Your task to perform on an android device: install app "Google Play services" Image 0: 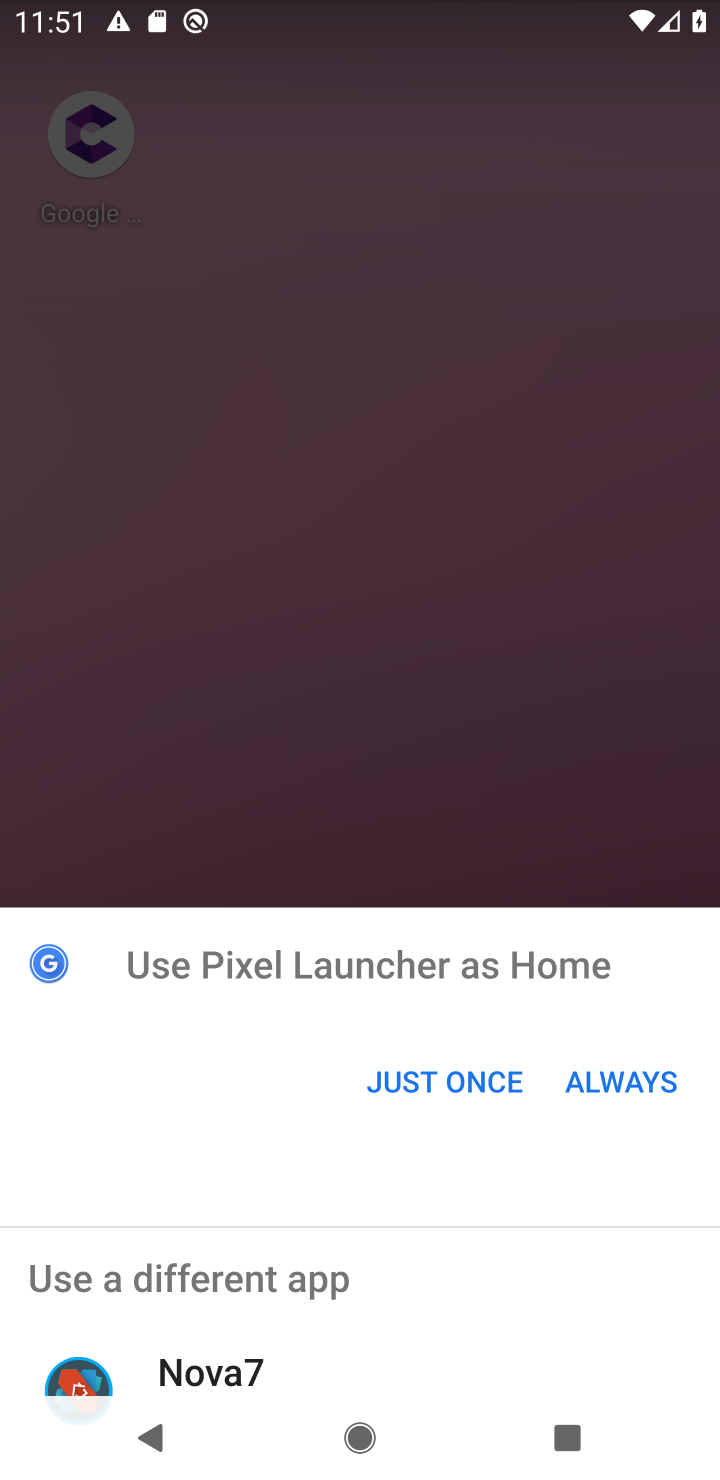
Step 0: press home button
Your task to perform on an android device: install app "Google Play services" Image 1: 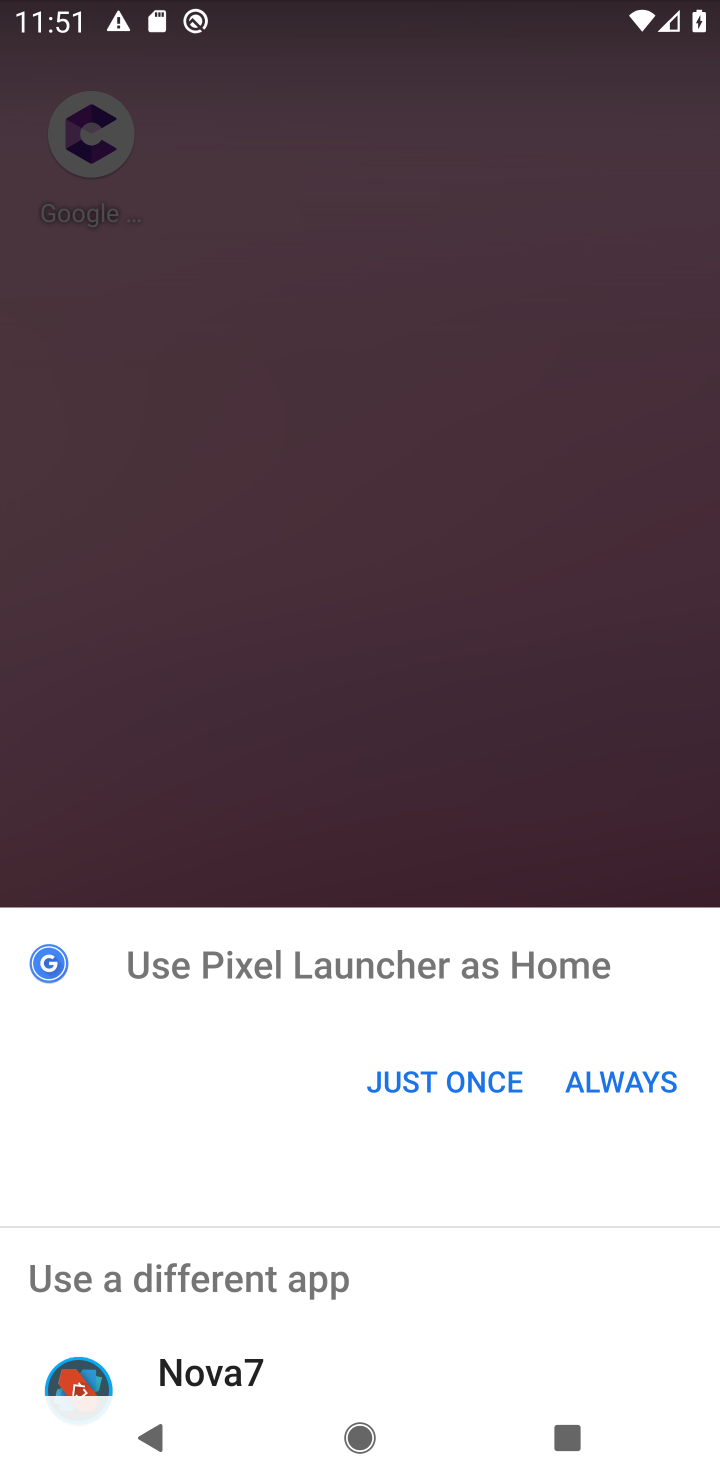
Step 1: click (352, 611)
Your task to perform on an android device: install app "Google Play services" Image 2: 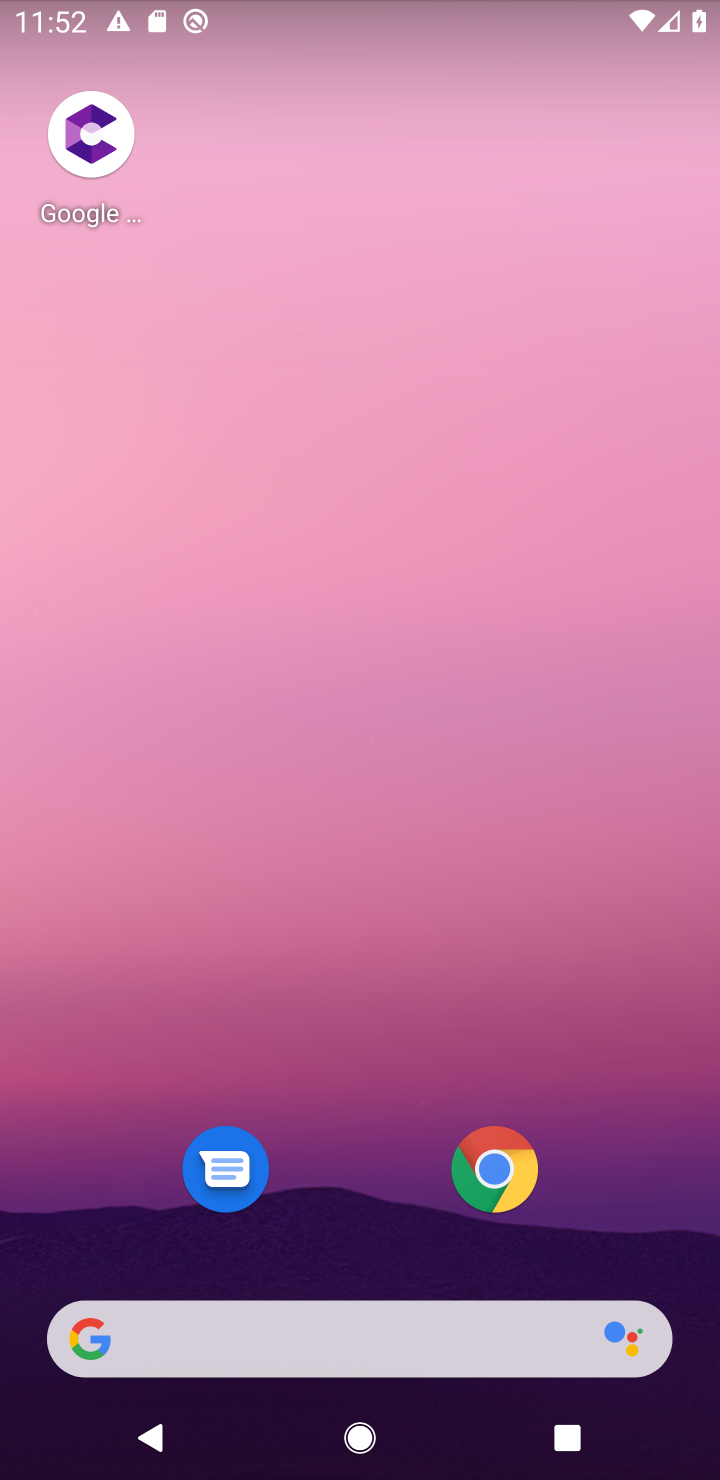
Step 2: drag from (419, 1253) to (293, 165)
Your task to perform on an android device: install app "Google Play services" Image 3: 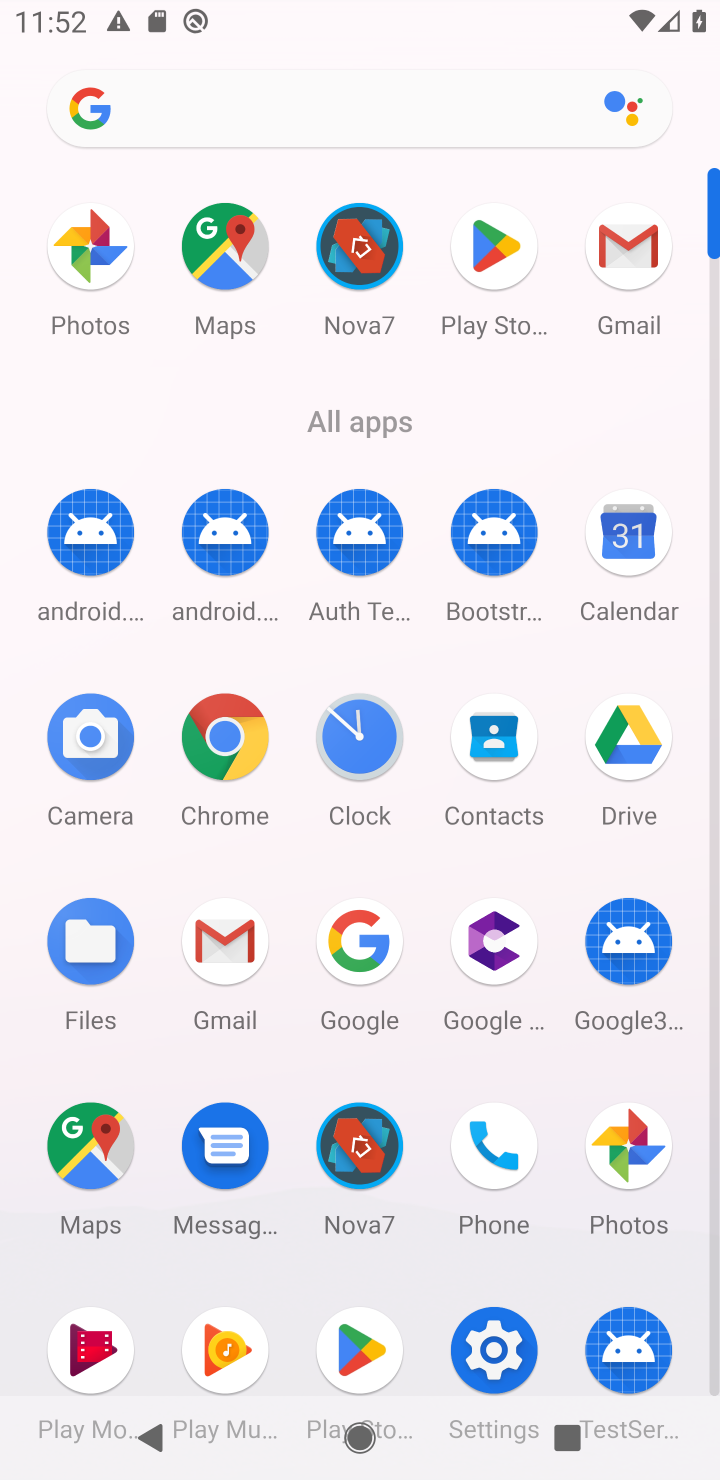
Step 3: click (335, 1351)
Your task to perform on an android device: install app "Google Play services" Image 4: 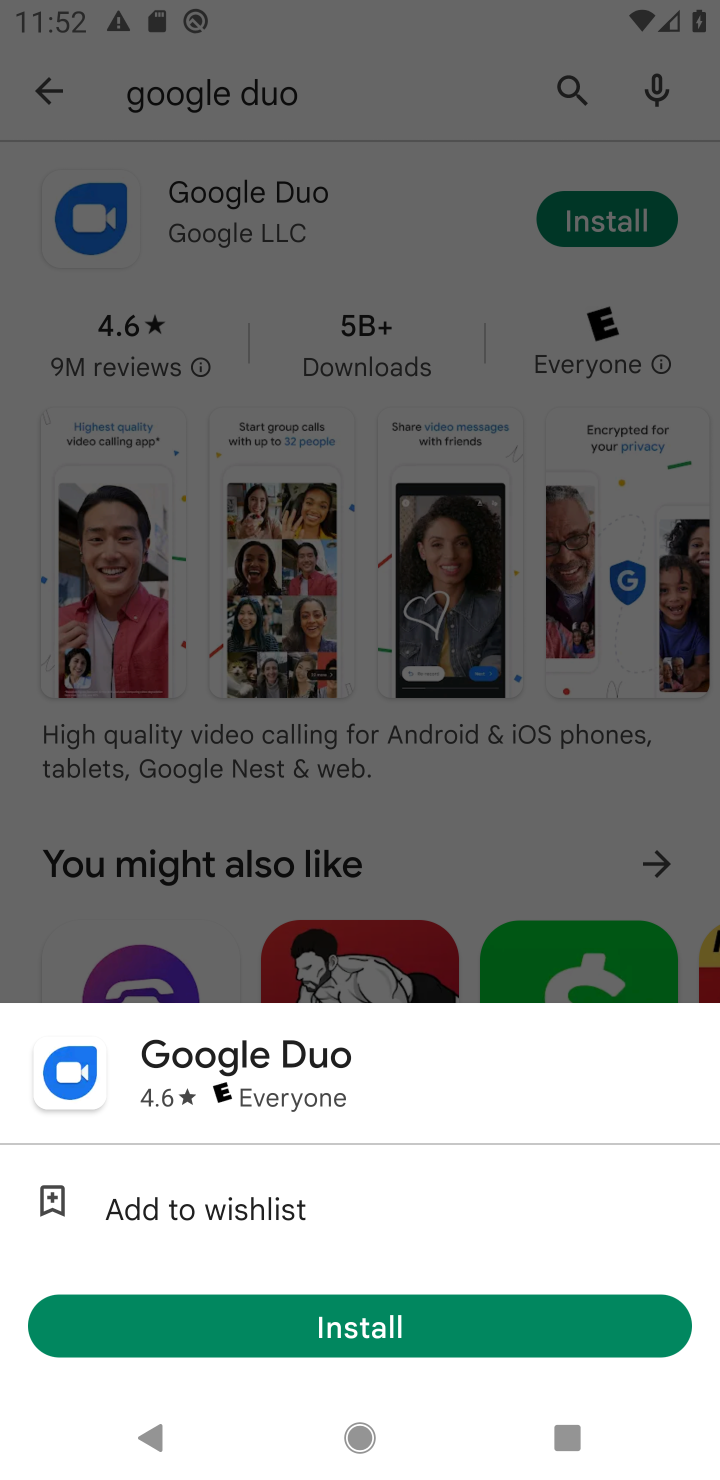
Step 4: click (217, 206)
Your task to perform on an android device: install app "Google Play services" Image 5: 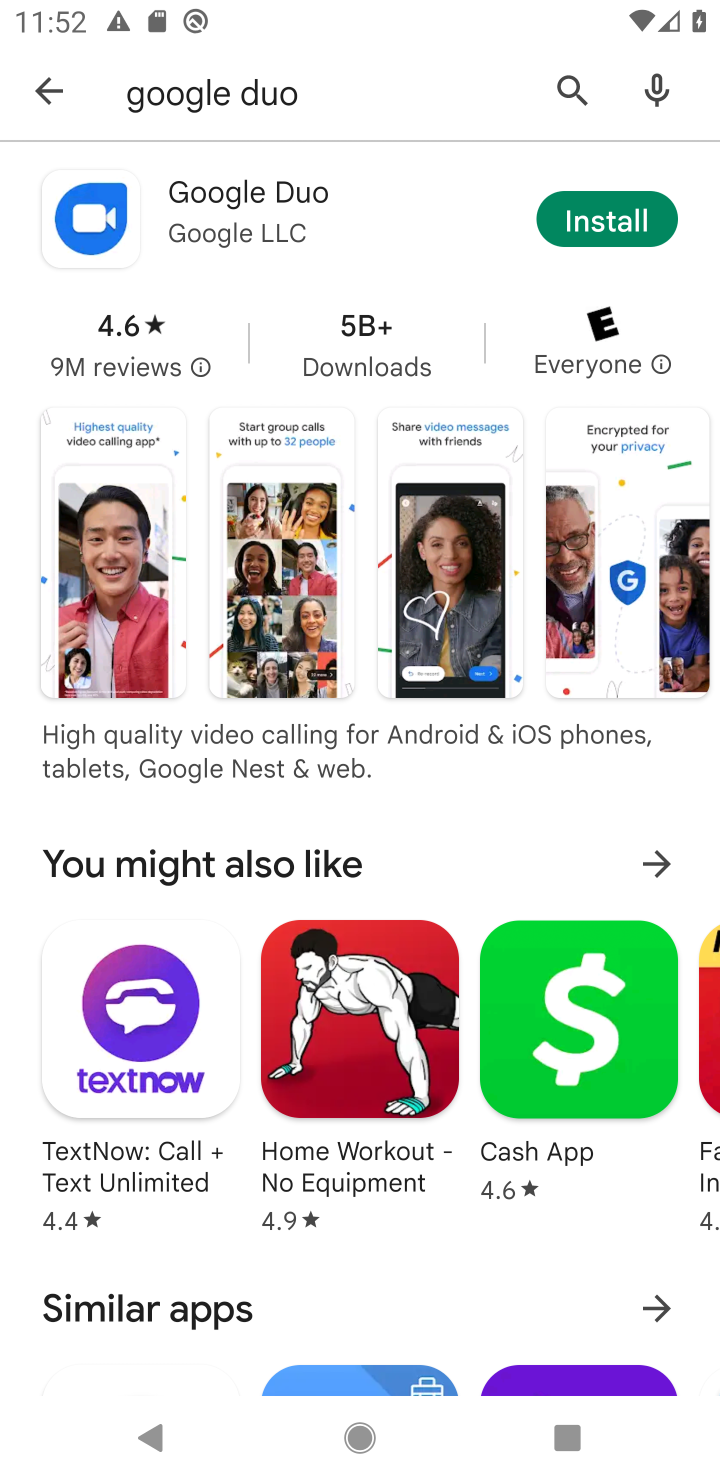
Step 5: click (4, 113)
Your task to perform on an android device: install app "Google Play services" Image 6: 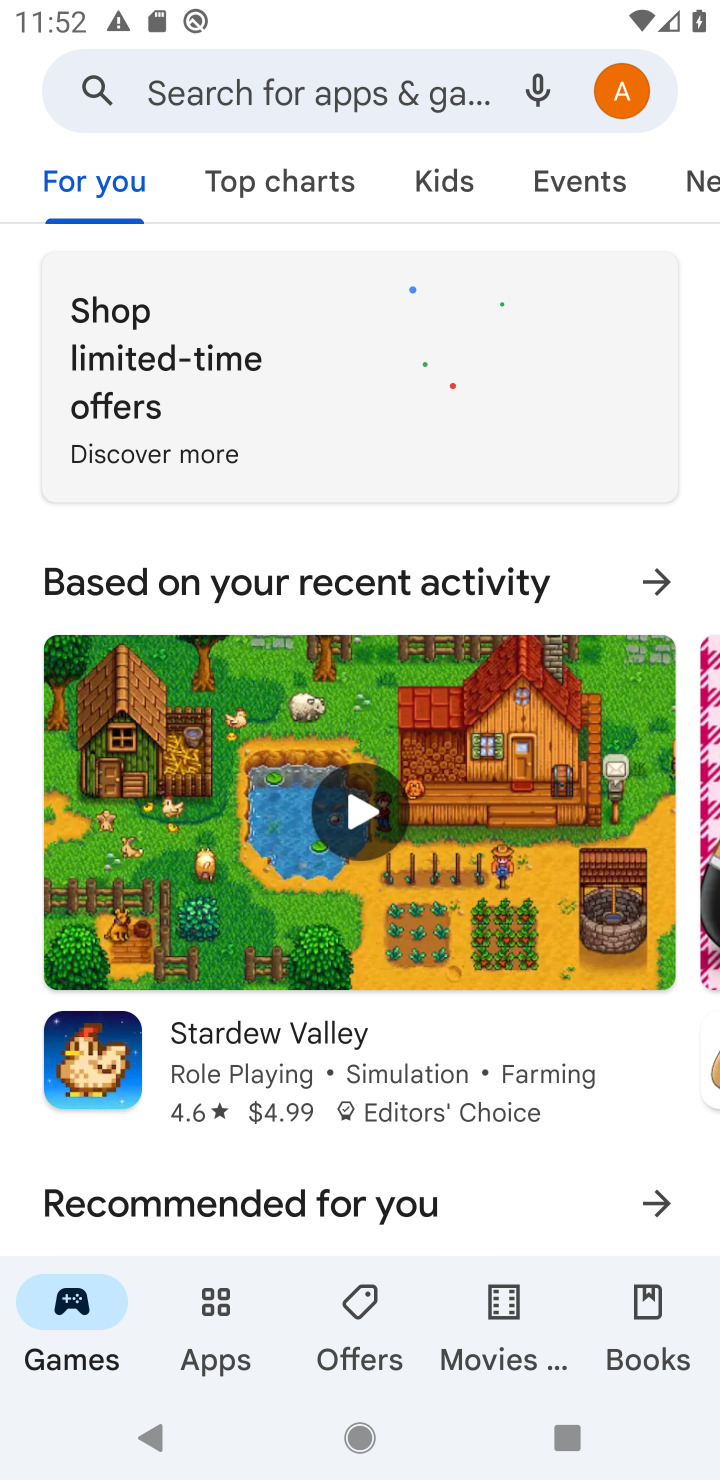
Step 6: click (138, 79)
Your task to perform on an android device: install app "Google Play services" Image 7: 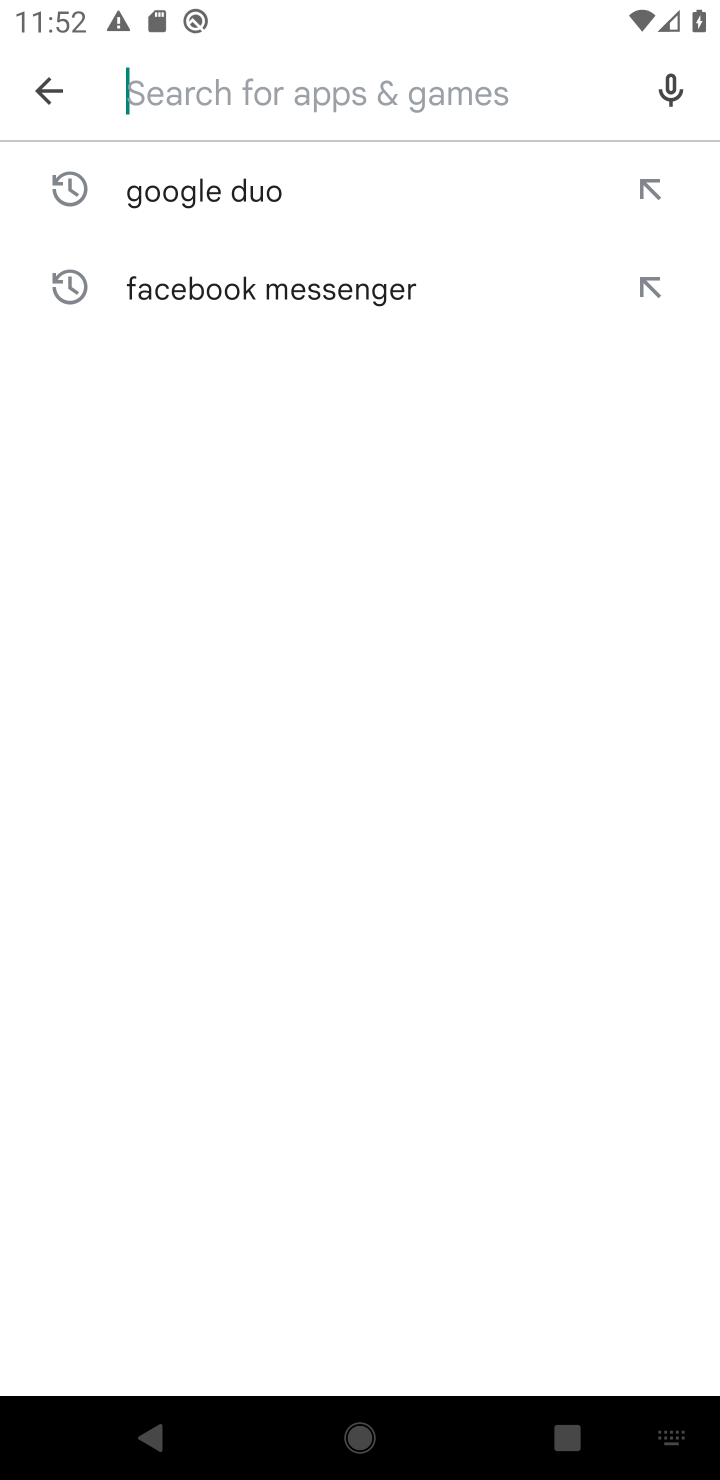
Step 7: type "Google Play services"
Your task to perform on an android device: install app "Google Play services" Image 8: 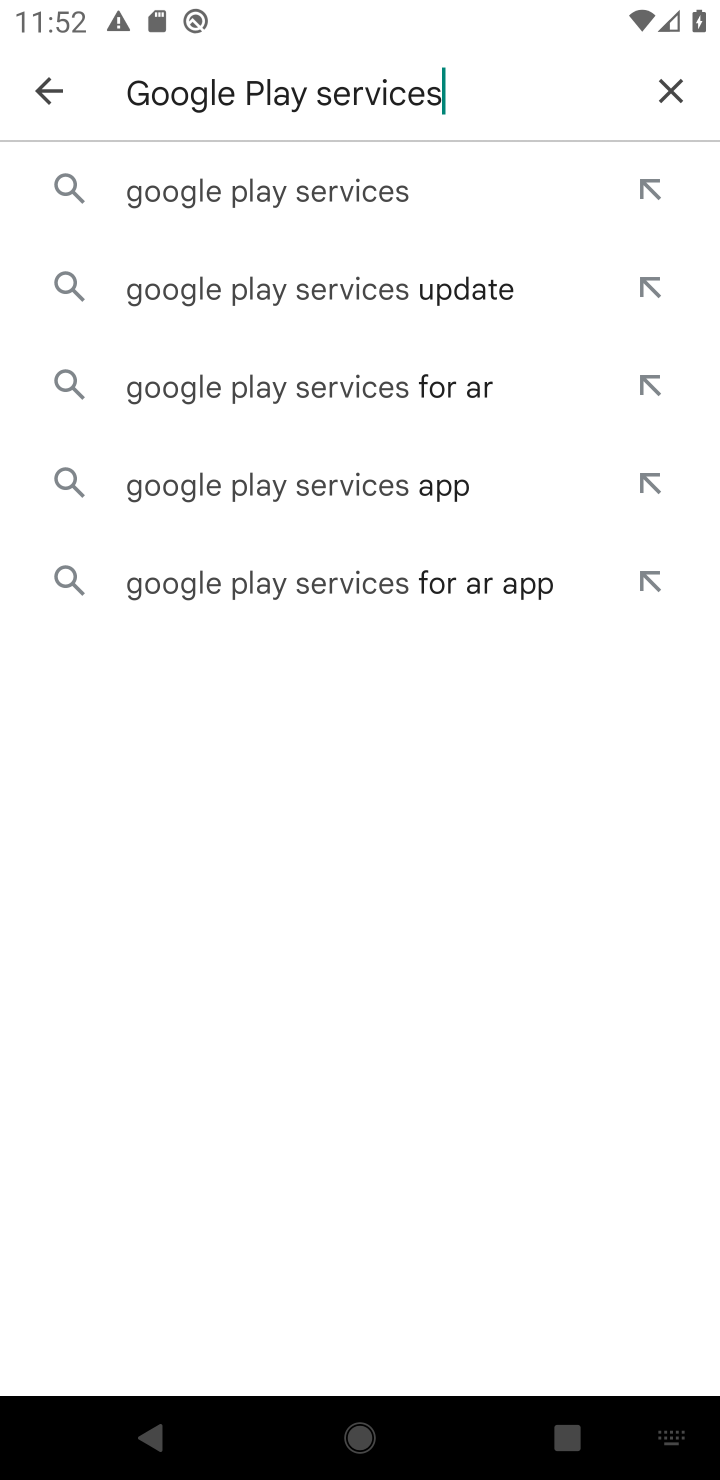
Step 8: click (300, 177)
Your task to perform on an android device: install app "Google Play services" Image 9: 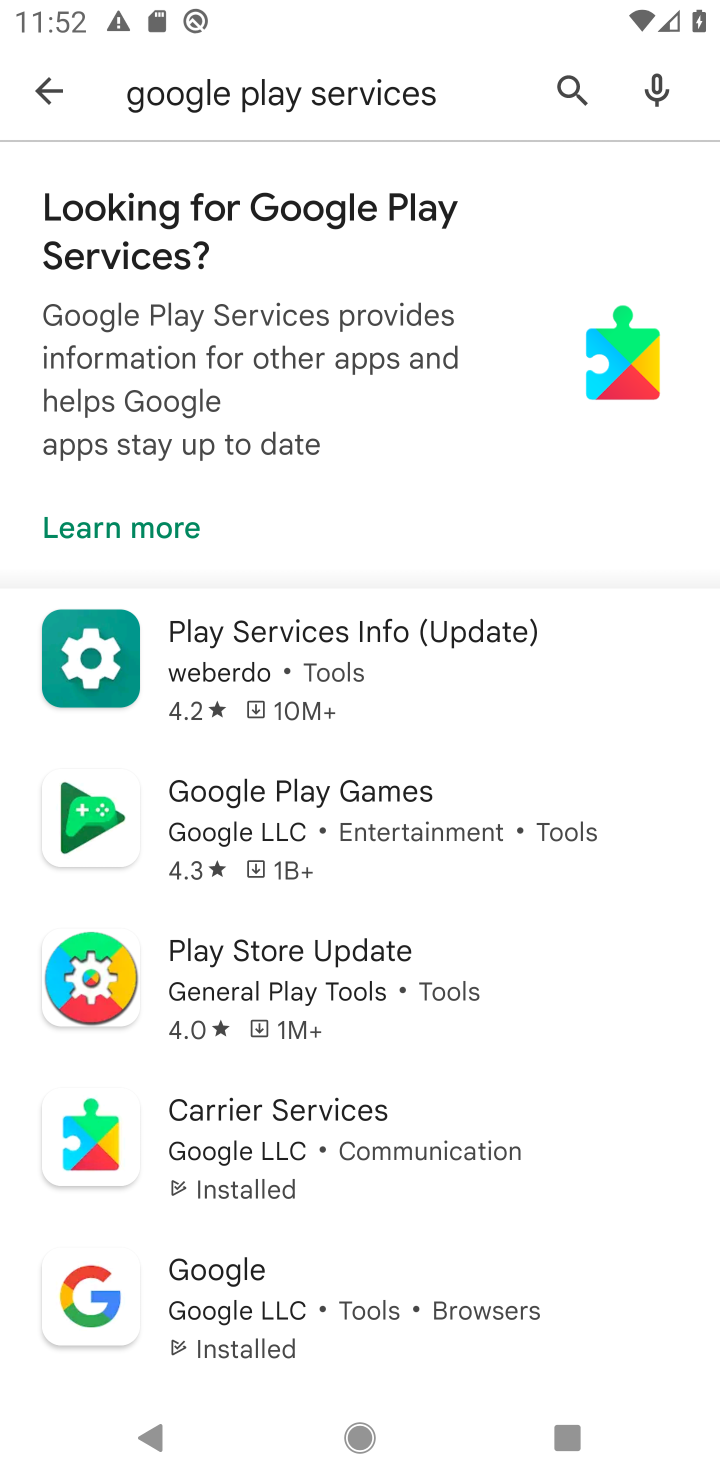
Step 9: task complete